Your task to perform on an android device: Go to Google maps Image 0: 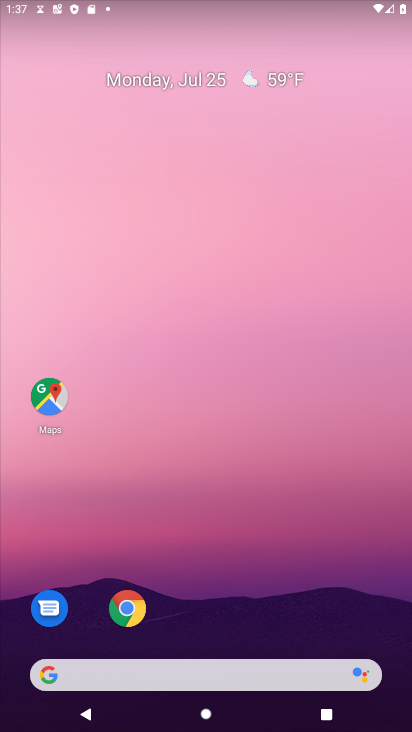
Step 0: drag from (188, 571) to (173, 108)
Your task to perform on an android device: Go to Google maps Image 1: 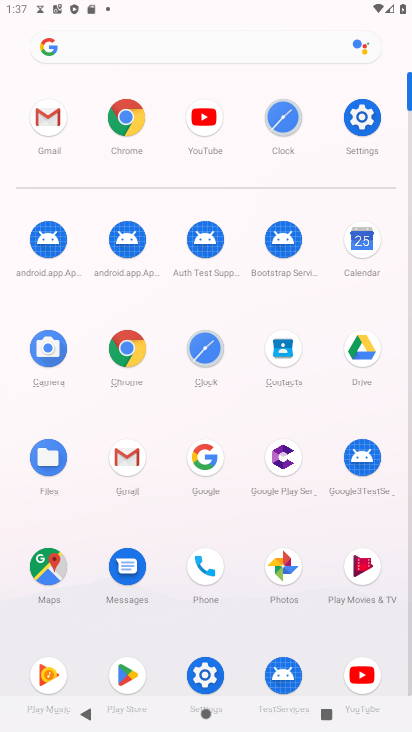
Step 1: click (62, 557)
Your task to perform on an android device: Go to Google maps Image 2: 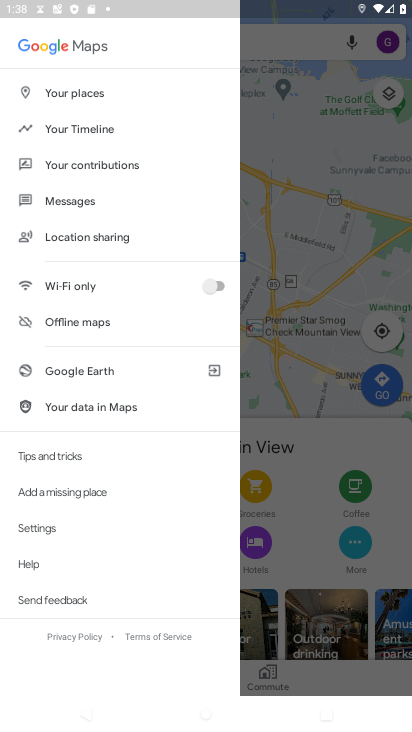
Step 2: task complete